Your task to perform on an android device: clear all cookies in the chrome app Image 0: 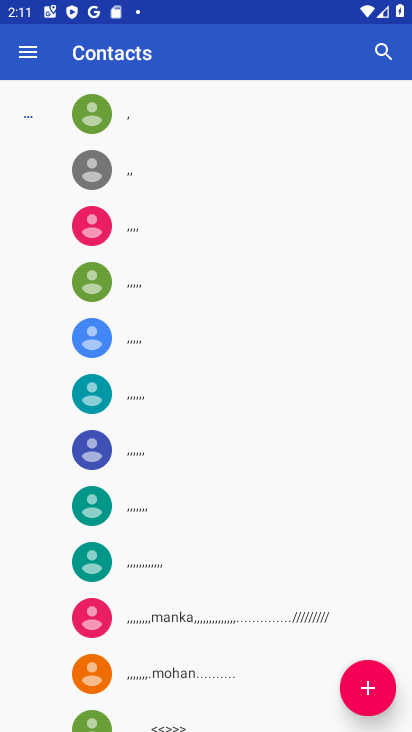
Step 0: press home button
Your task to perform on an android device: clear all cookies in the chrome app Image 1: 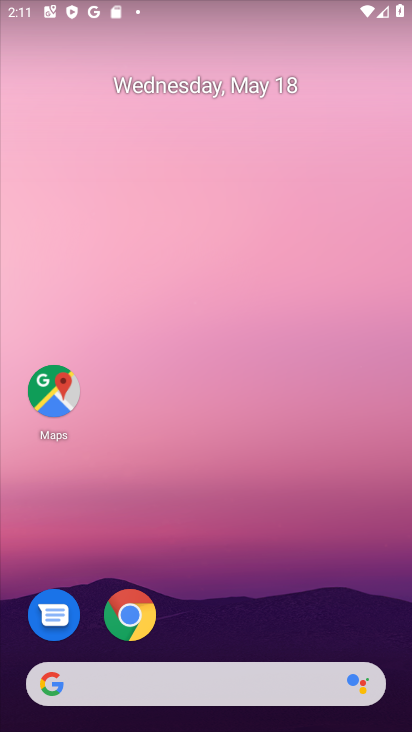
Step 1: click (142, 627)
Your task to perform on an android device: clear all cookies in the chrome app Image 2: 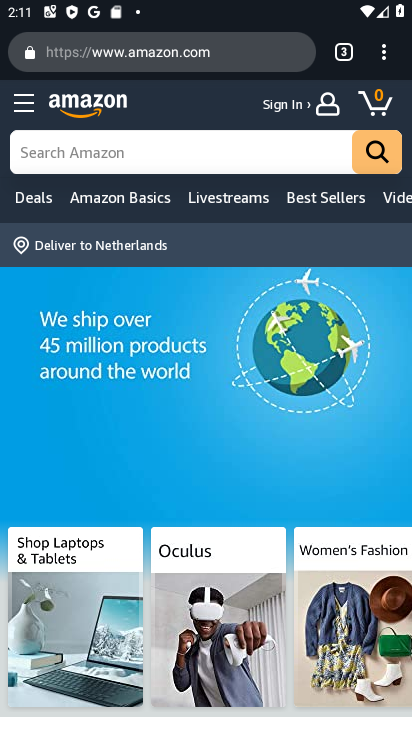
Step 2: click (386, 66)
Your task to perform on an android device: clear all cookies in the chrome app Image 3: 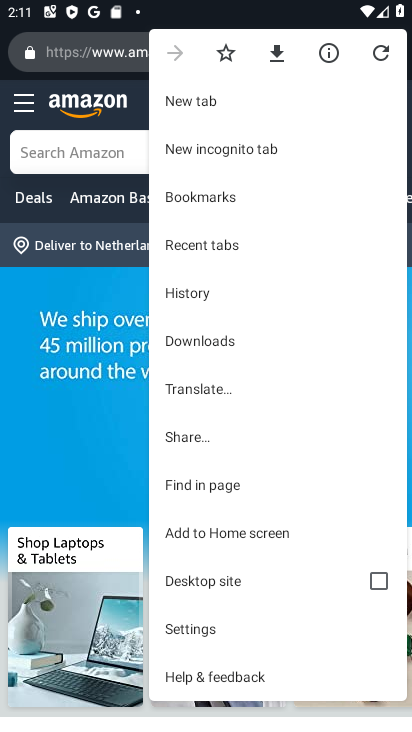
Step 3: click (251, 282)
Your task to perform on an android device: clear all cookies in the chrome app Image 4: 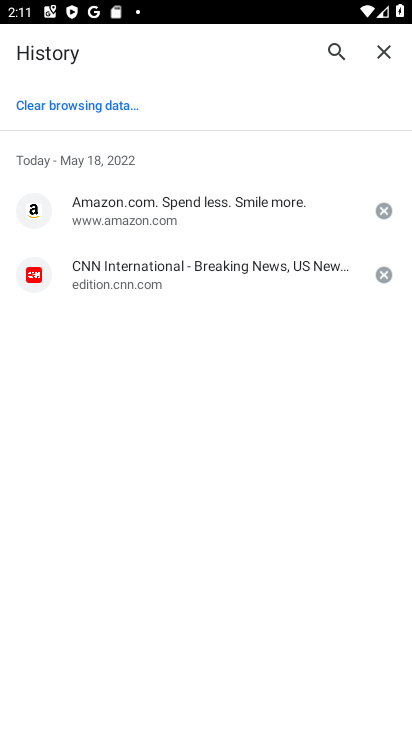
Step 4: click (119, 105)
Your task to perform on an android device: clear all cookies in the chrome app Image 5: 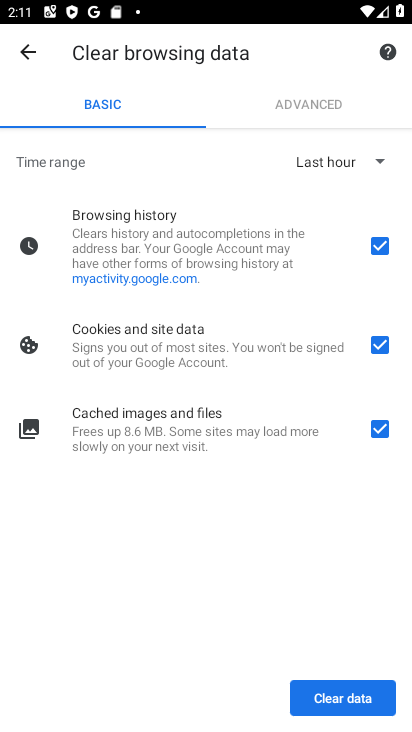
Step 5: click (379, 428)
Your task to perform on an android device: clear all cookies in the chrome app Image 6: 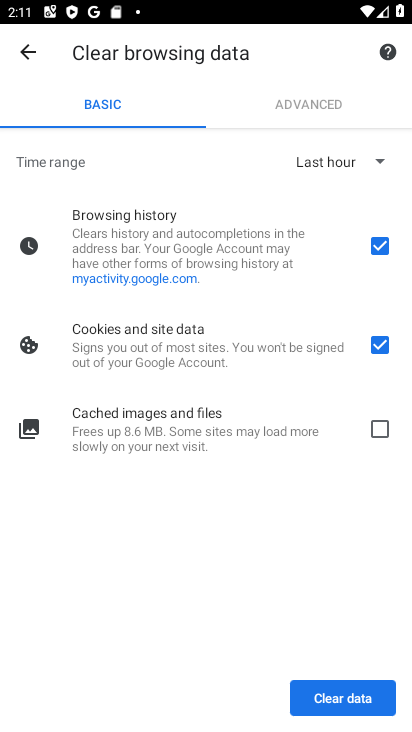
Step 6: click (372, 242)
Your task to perform on an android device: clear all cookies in the chrome app Image 7: 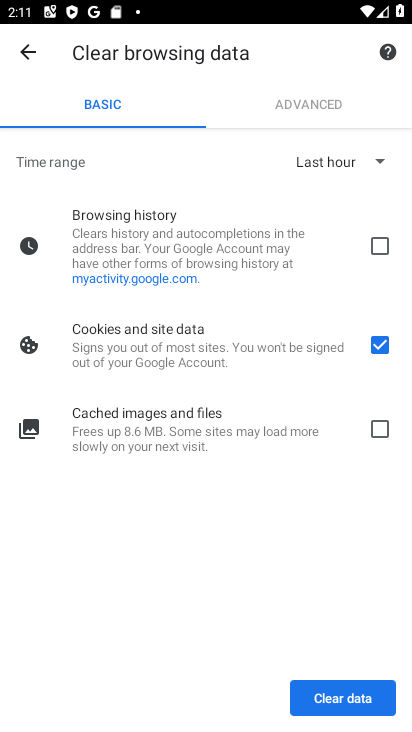
Step 7: click (341, 698)
Your task to perform on an android device: clear all cookies in the chrome app Image 8: 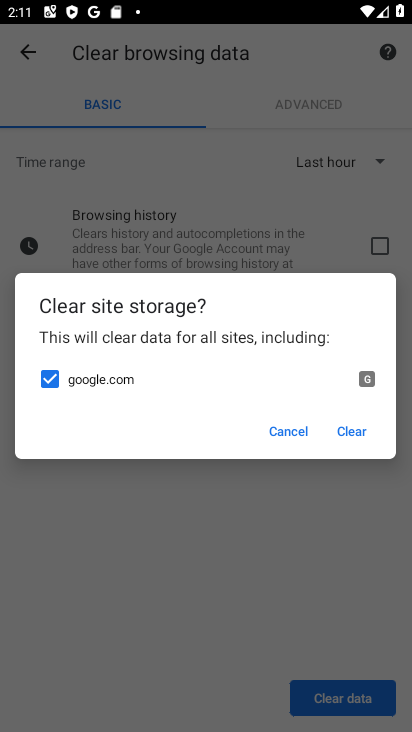
Step 8: click (356, 434)
Your task to perform on an android device: clear all cookies in the chrome app Image 9: 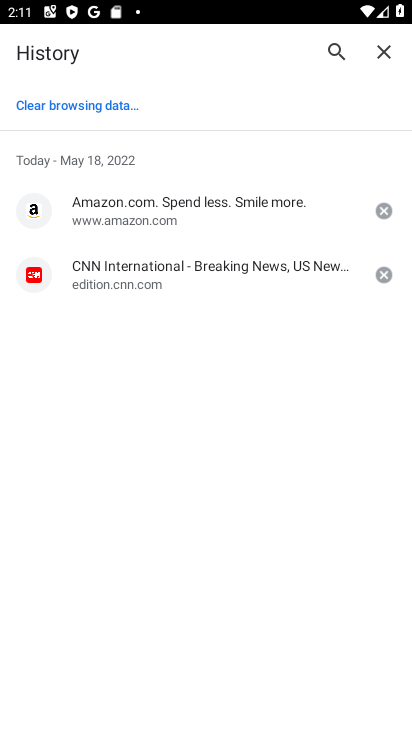
Step 9: task complete